Your task to perform on an android device: set default search engine in the chrome app Image 0: 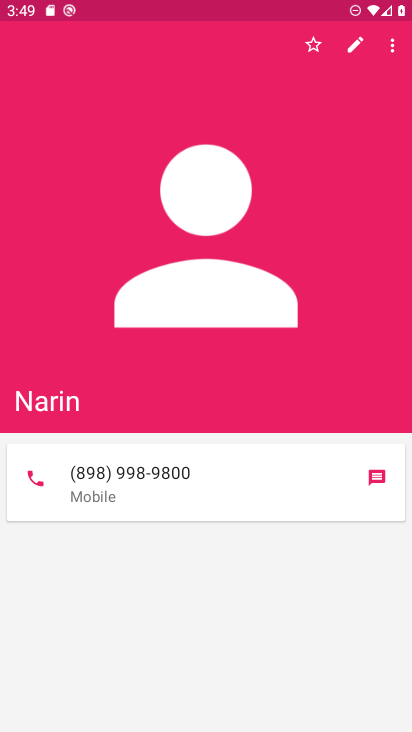
Step 0: press home button
Your task to perform on an android device: set default search engine in the chrome app Image 1: 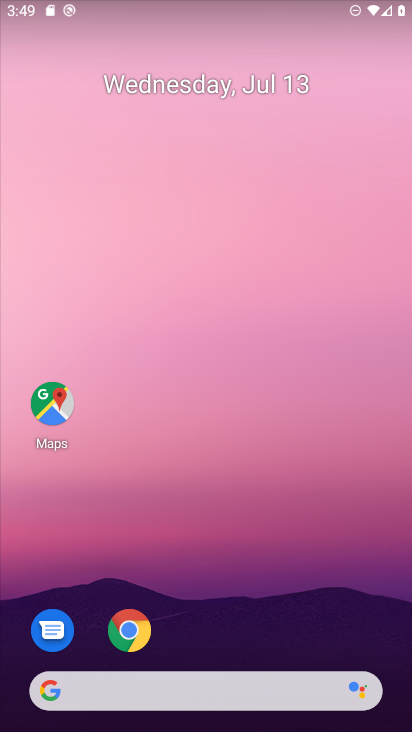
Step 1: click (123, 640)
Your task to perform on an android device: set default search engine in the chrome app Image 2: 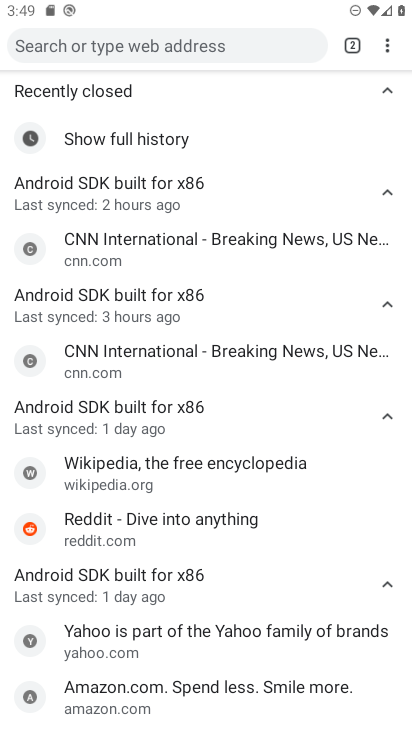
Step 2: click (390, 47)
Your task to perform on an android device: set default search engine in the chrome app Image 3: 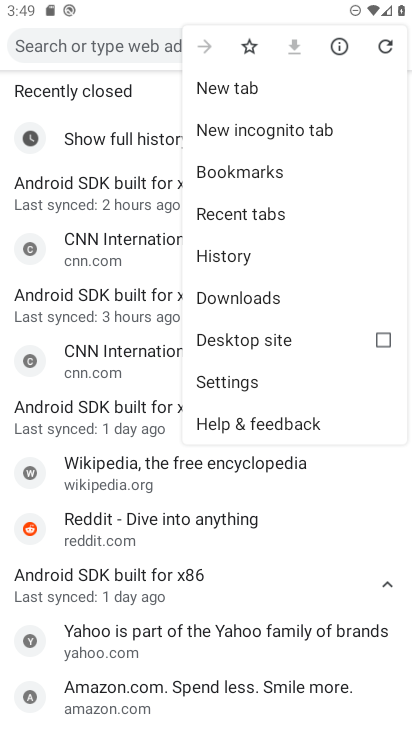
Step 3: click (227, 391)
Your task to perform on an android device: set default search engine in the chrome app Image 4: 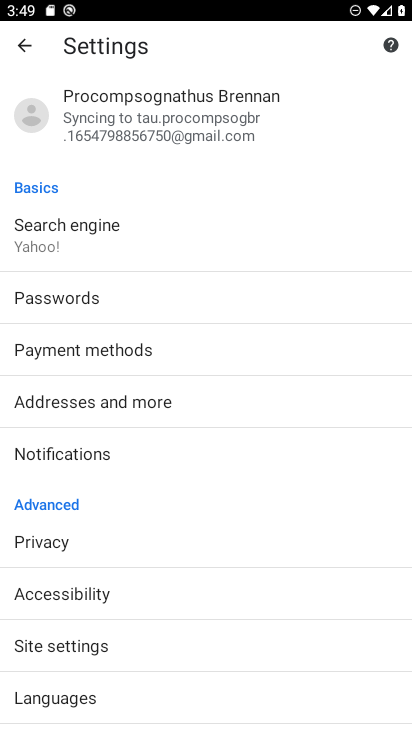
Step 4: click (104, 246)
Your task to perform on an android device: set default search engine in the chrome app Image 5: 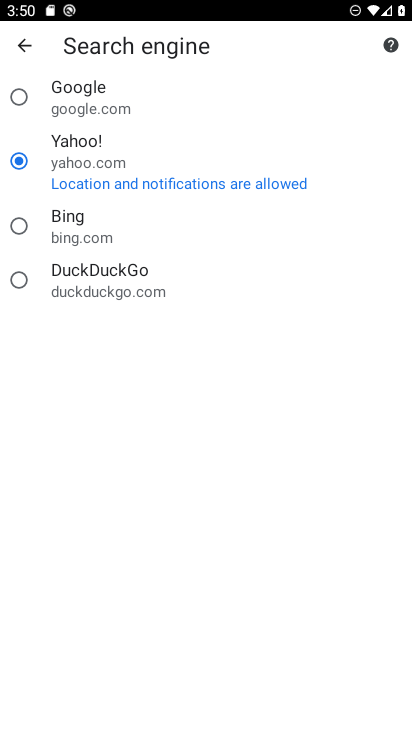
Step 5: click (17, 95)
Your task to perform on an android device: set default search engine in the chrome app Image 6: 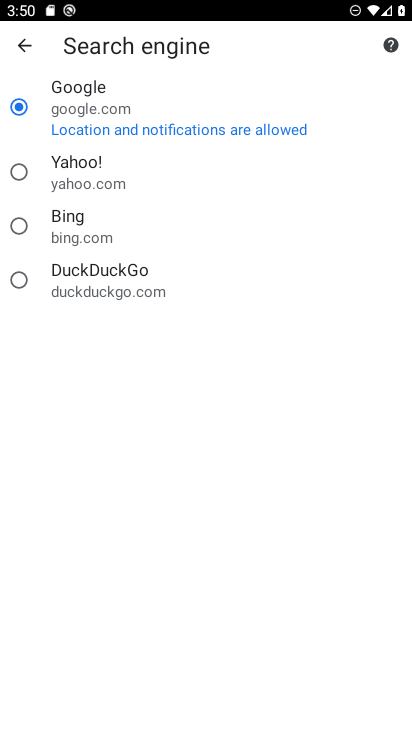
Step 6: task complete